Your task to perform on an android device: Go to Android settings Image 0: 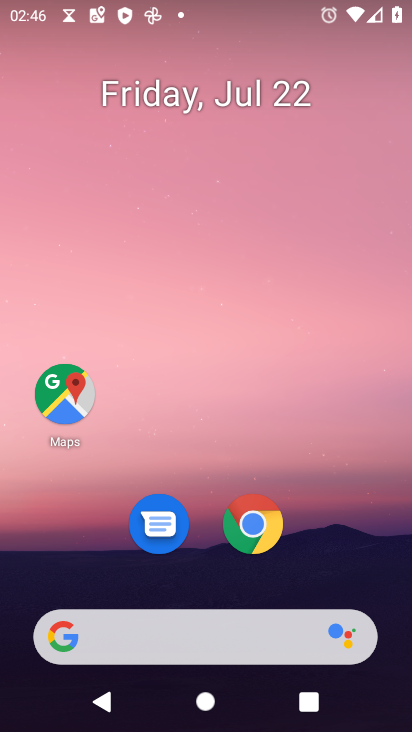
Step 0: press home button
Your task to perform on an android device: Go to Android settings Image 1: 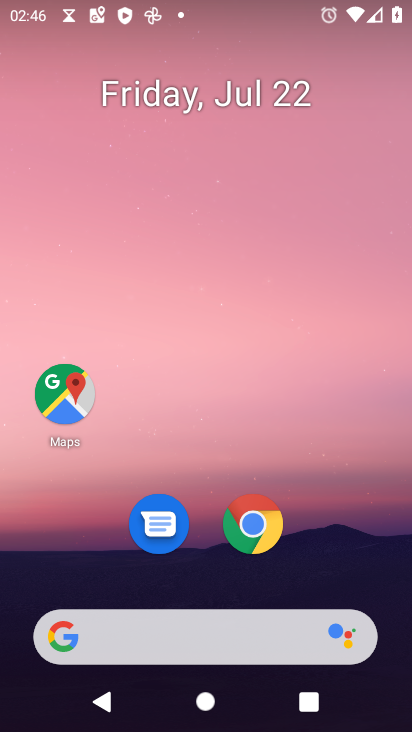
Step 1: drag from (181, 613) to (282, 209)
Your task to perform on an android device: Go to Android settings Image 2: 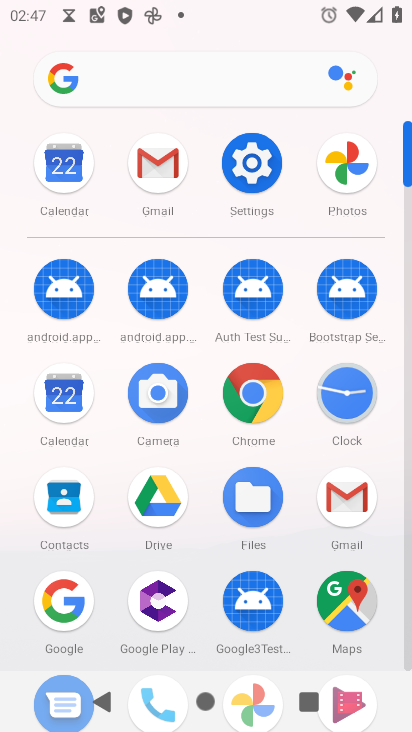
Step 2: click (246, 161)
Your task to perform on an android device: Go to Android settings Image 3: 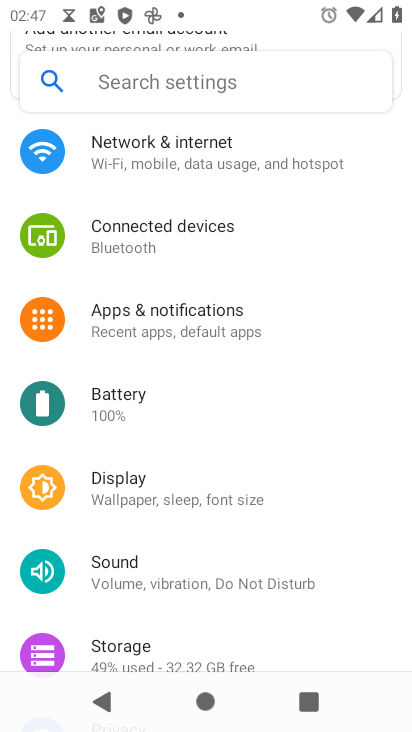
Step 3: task complete